Your task to perform on an android device: Open accessibility settings Image 0: 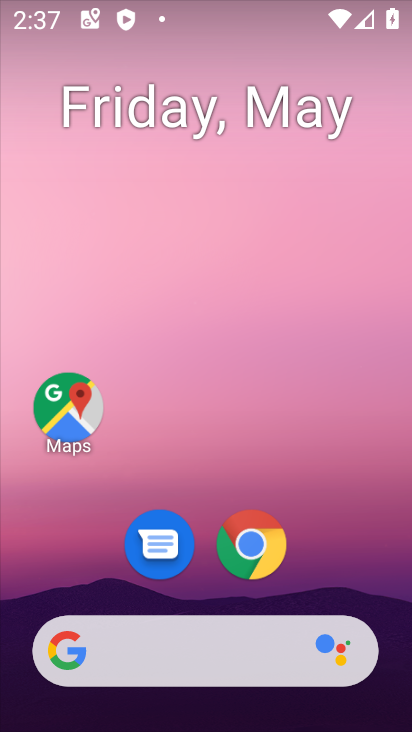
Step 0: drag from (201, 584) to (272, 191)
Your task to perform on an android device: Open accessibility settings Image 1: 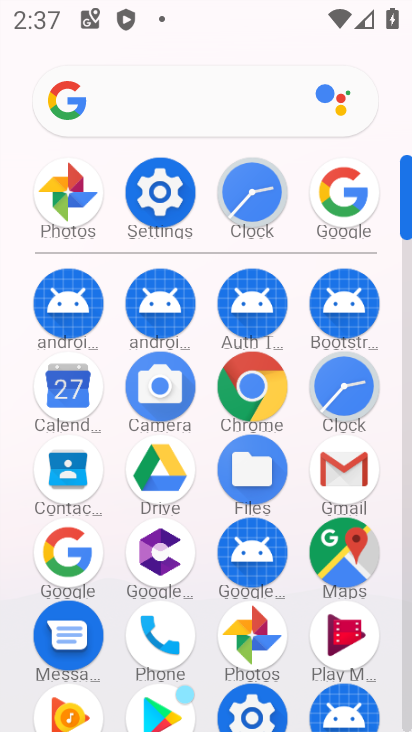
Step 1: click (139, 215)
Your task to perform on an android device: Open accessibility settings Image 2: 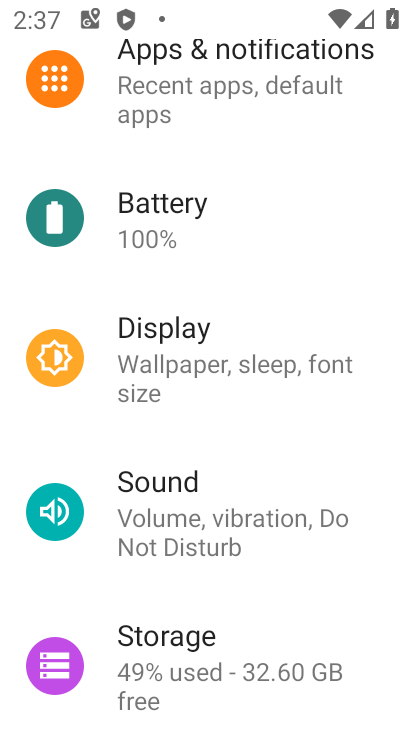
Step 2: drag from (218, 574) to (264, 241)
Your task to perform on an android device: Open accessibility settings Image 3: 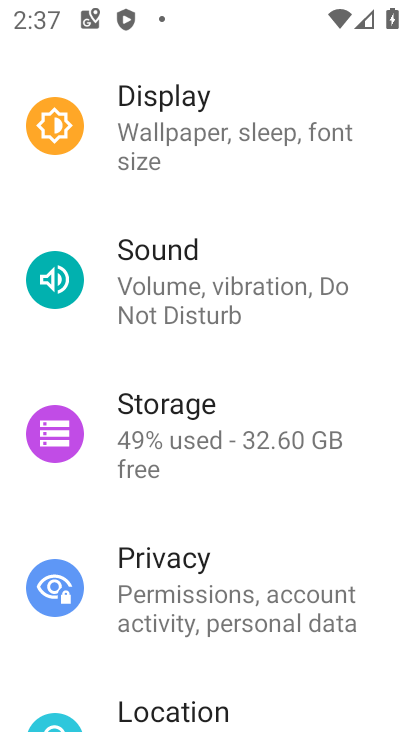
Step 3: drag from (271, 522) to (304, 213)
Your task to perform on an android device: Open accessibility settings Image 4: 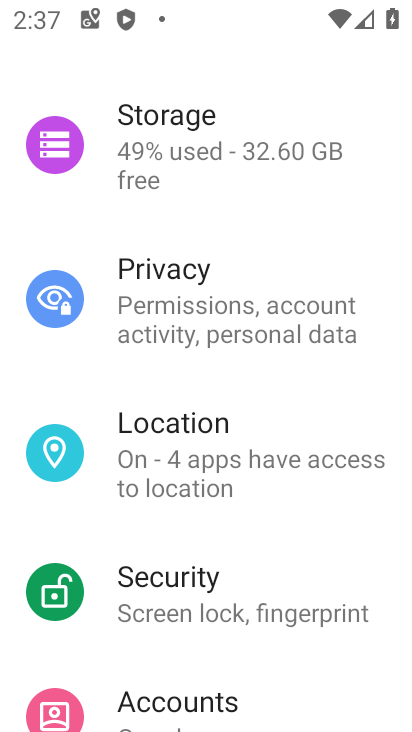
Step 4: drag from (293, 600) to (300, 230)
Your task to perform on an android device: Open accessibility settings Image 5: 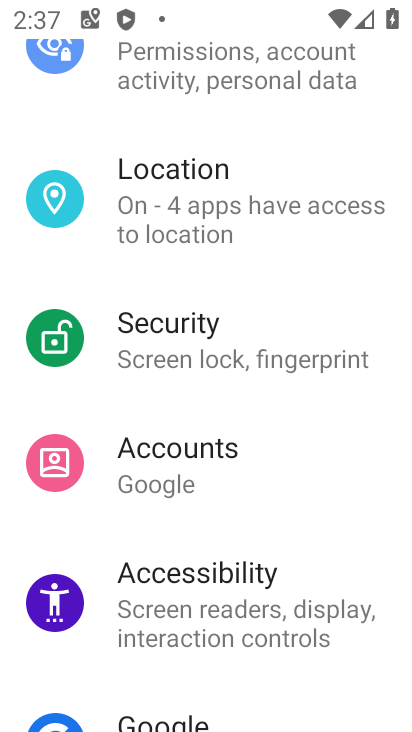
Step 5: click (245, 552)
Your task to perform on an android device: Open accessibility settings Image 6: 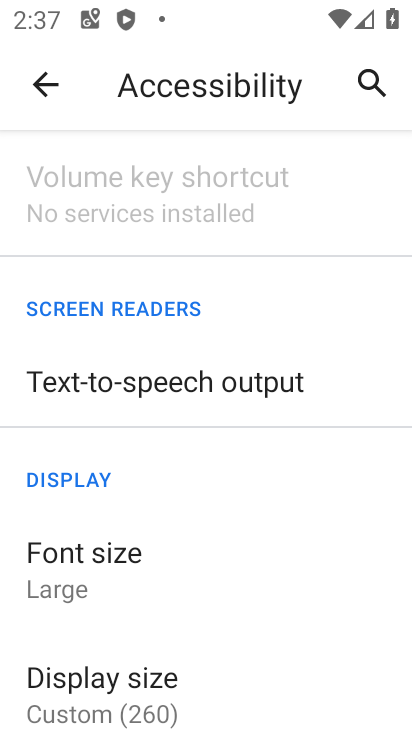
Step 6: task complete